Your task to perform on an android device: open a bookmark in the chrome app Image 0: 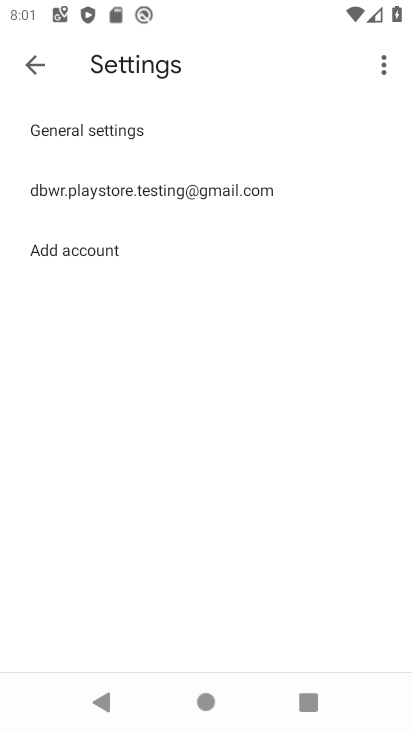
Step 0: press home button
Your task to perform on an android device: open a bookmark in the chrome app Image 1: 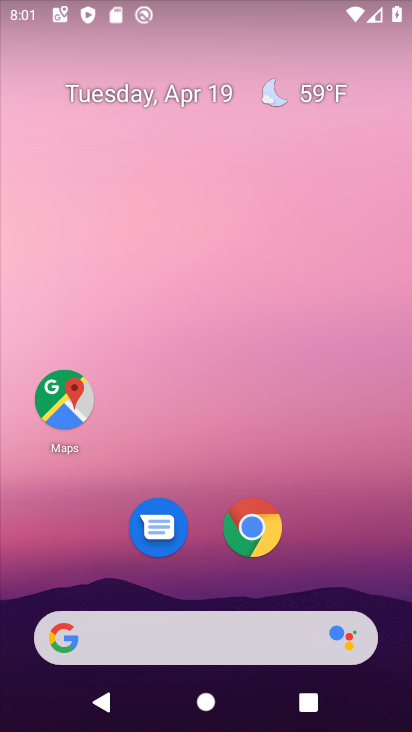
Step 1: click (268, 533)
Your task to perform on an android device: open a bookmark in the chrome app Image 2: 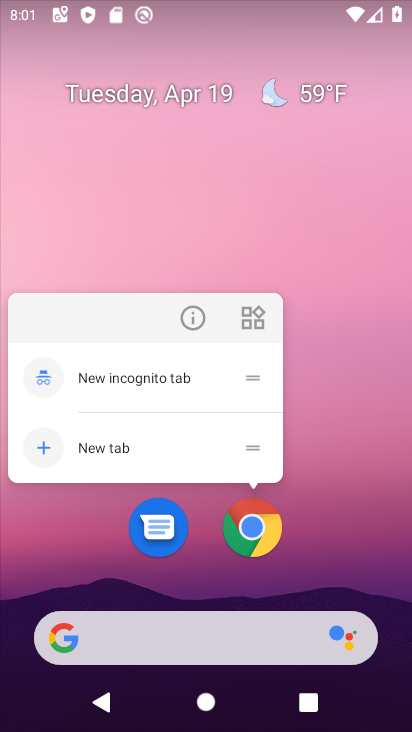
Step 2: click (250, 515)
Your task to perform on an android device: open a bookmark in the chrome app Image 3: 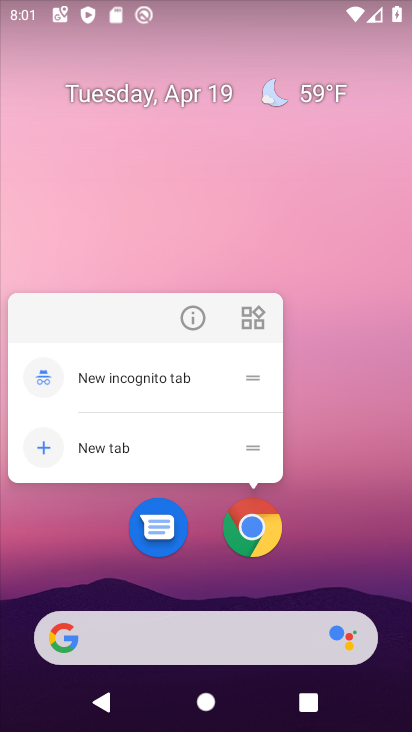
Step 3: click (232, 542)
Your task to perform on an android device: open a bookmark in the chrome app Image 4: 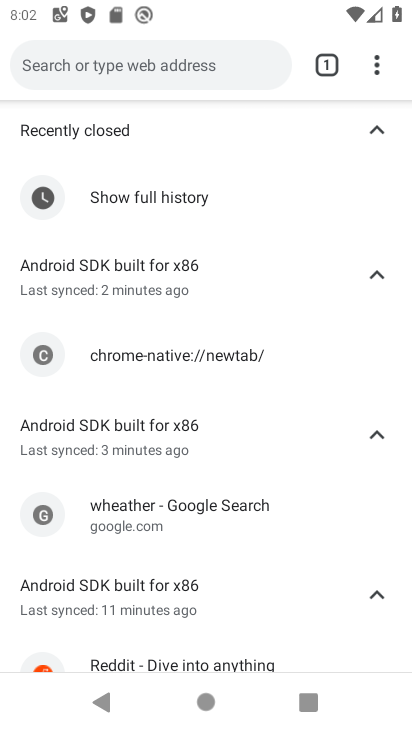
Step 4: drag from (382, 67) to (192, 245)
Your task to perform on an android device: open a bookmark in the chrome app Image 5: 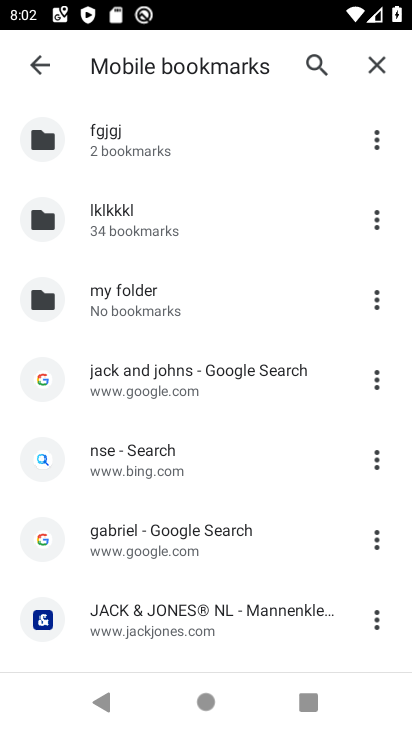
Step 5: click (146, 374)
Your task to perform on an android device: open a bookmark in the chrome app Image 6: 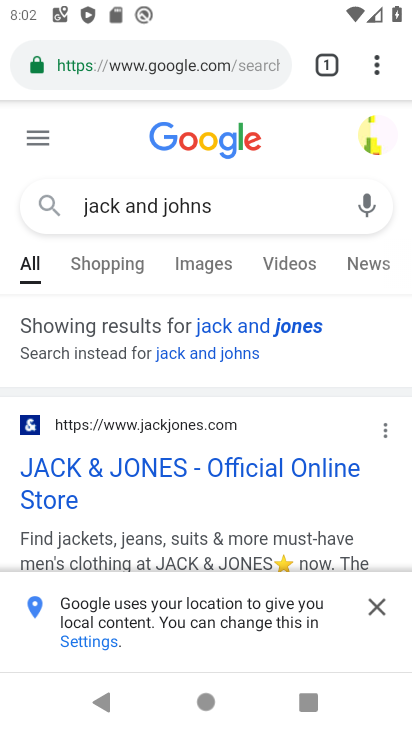
Step 6: task complete